Your task to perform on an android device: toggle location history Image 0: 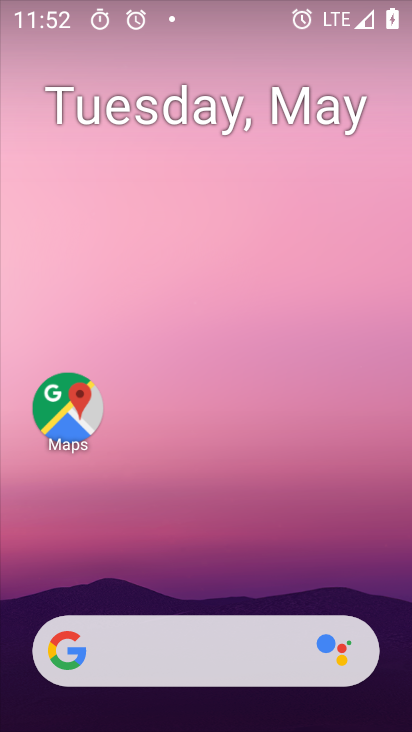
Step 0: drag from (246, 627) to (252, 182)
Your task to perform on an android device: toggle location history Image 1: 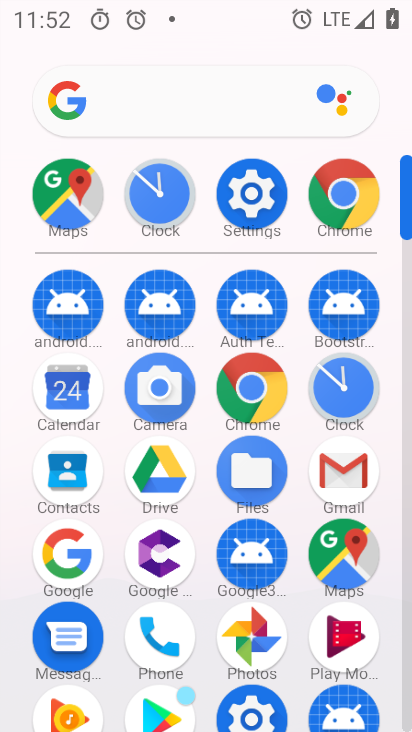
Step 1: click (249, 215)
Your task to perform on an android device: toggle location history Image 2: 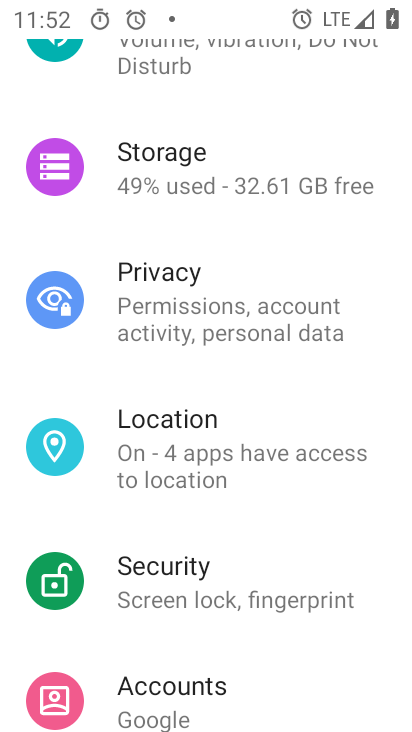
Step 2: click (209, 487)
Your task to perform on an android device: toggle location history Image 3: 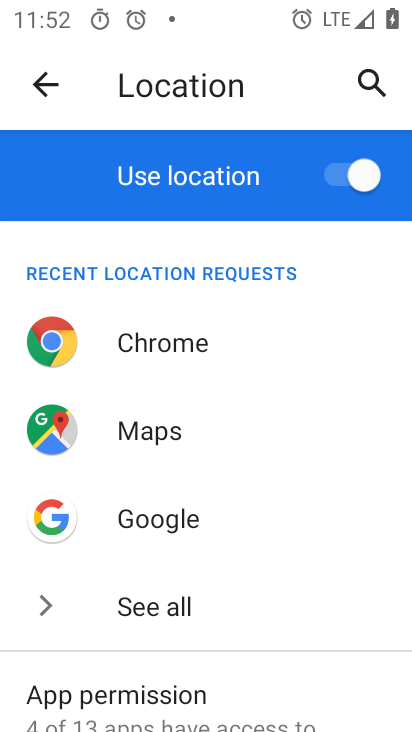
Step 3: drag from (183, 655) to (184, 212)
Your task to perform on an android device: toggle location history Image 4: 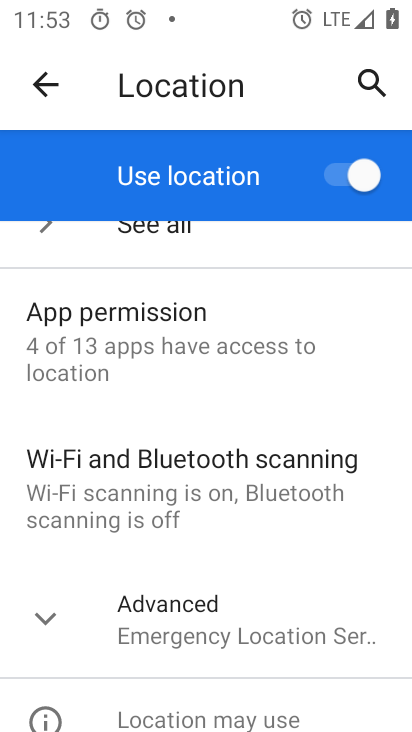
Step 4: click (222, 661)
Your task to perform on an android device: toggle location history Image 5: 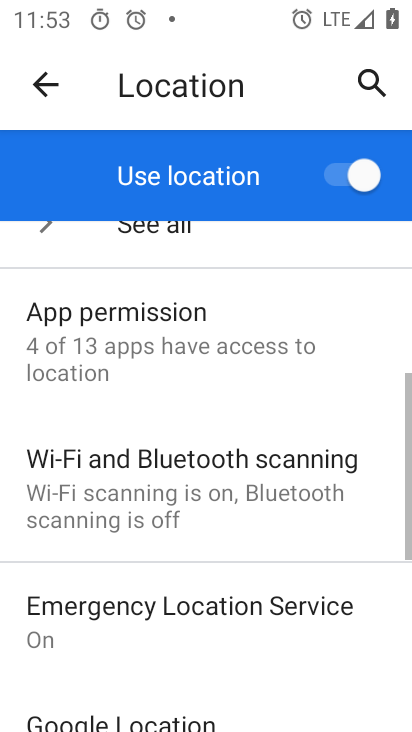
Step 5: drag from (184, 670) to (191, 427)
Your task to perform on an android device: toggle location history Image 6: 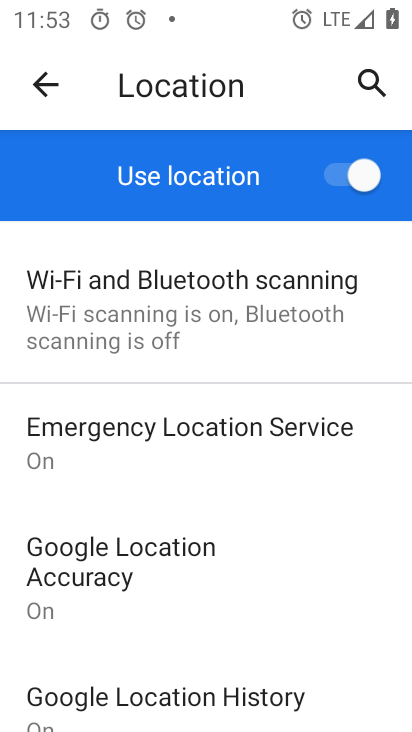
Step 6: click (180, 713)
Your task to perform on an android device: toggle location history Image 7: 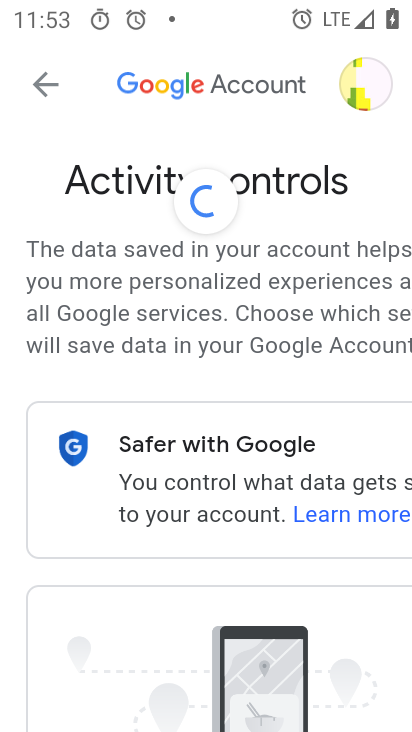
Step 7: drag from (354, 646) to (27, 92)
Your task to perform on an android device: toggle location history Image 8: 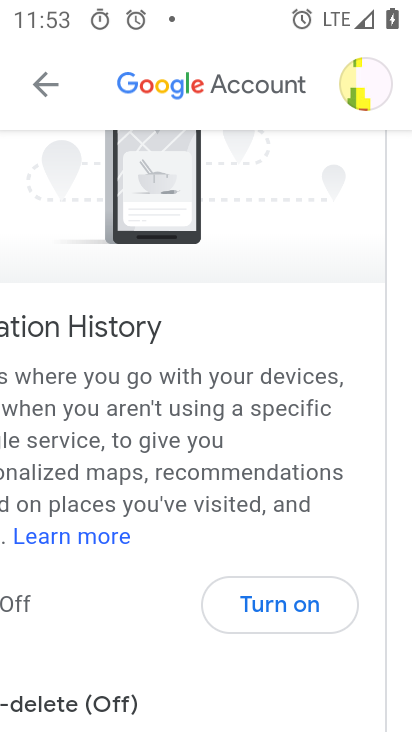
Step 8: click (225, 586)
Your task to perform on an android device: toggle location history Image 9: 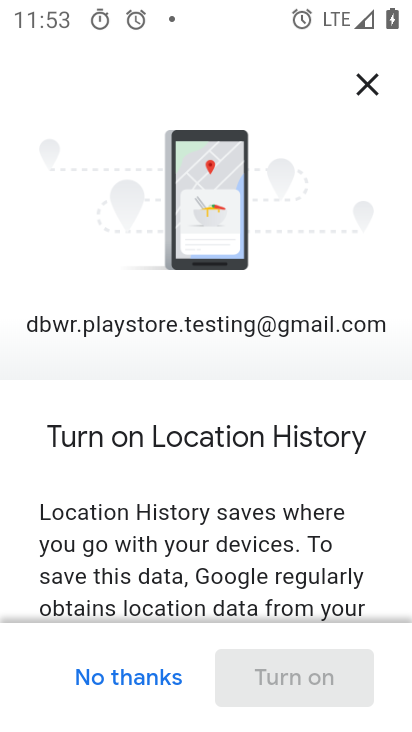
Step 9: drag from (251, 593) to (140, 128)
Your task to perform on an android device: toggle location history Image 10: 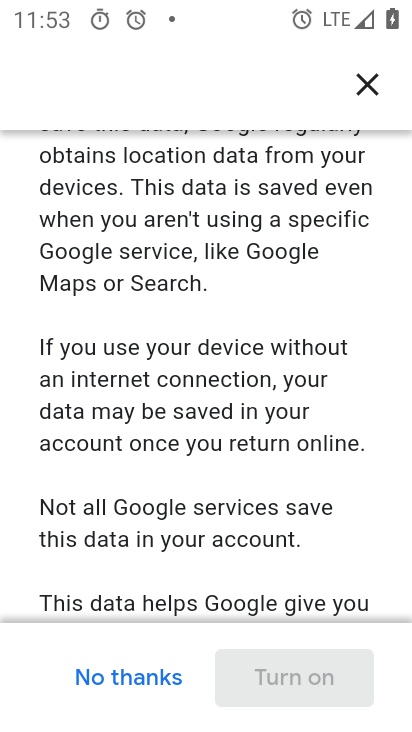
Step 10: drag from (307, 598) to (257, 144)
Your task to perform on an android device: toggle location history Image 11: 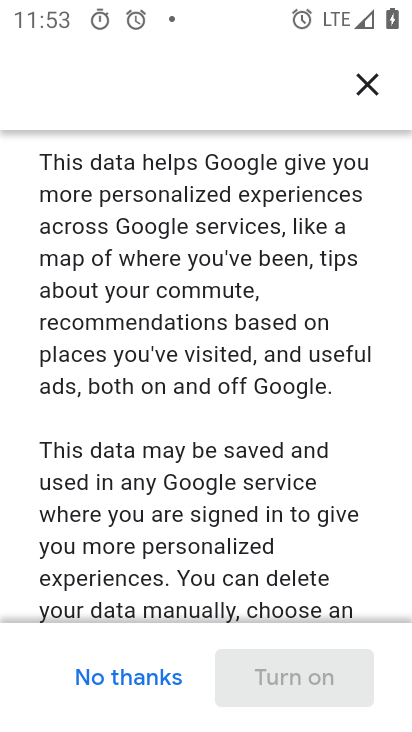
Step 11: drag from (246, 568) to (213, 192)
Your task to perform on an android device: toggle location history Image 12: 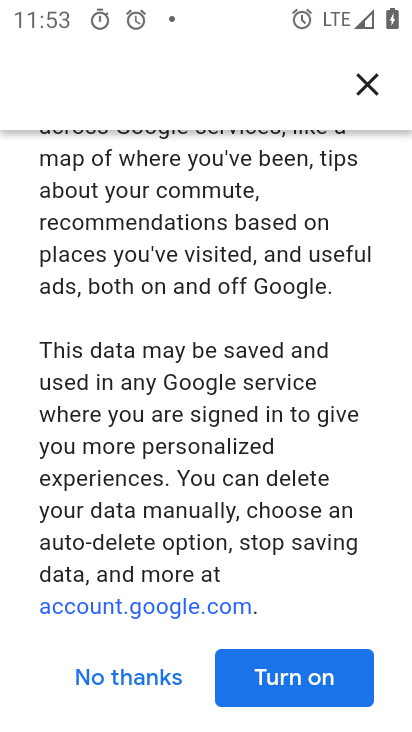
Step 12: click (290, 668)
Your task to perform on an android device: toggle location history Image 13: 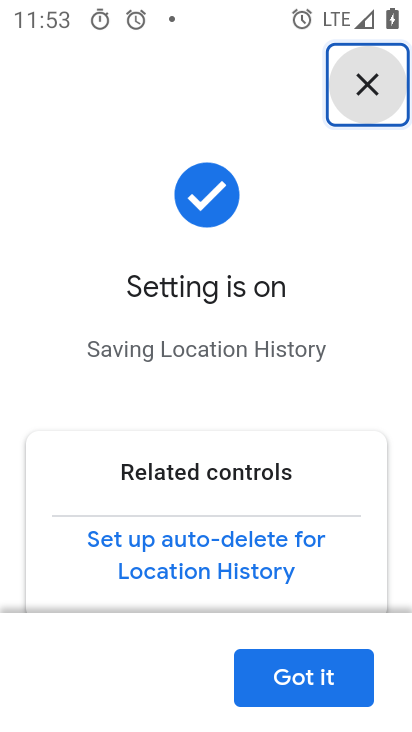
Step 13: click (290, 668)
Your task to perform on an android device: toggle location history Image 14: 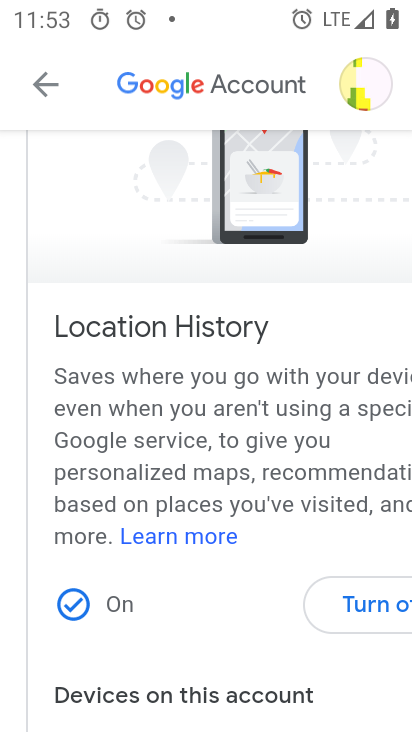
Step 14: task complete